Your task to perform on an android device: open device folders in google photos Image 0: 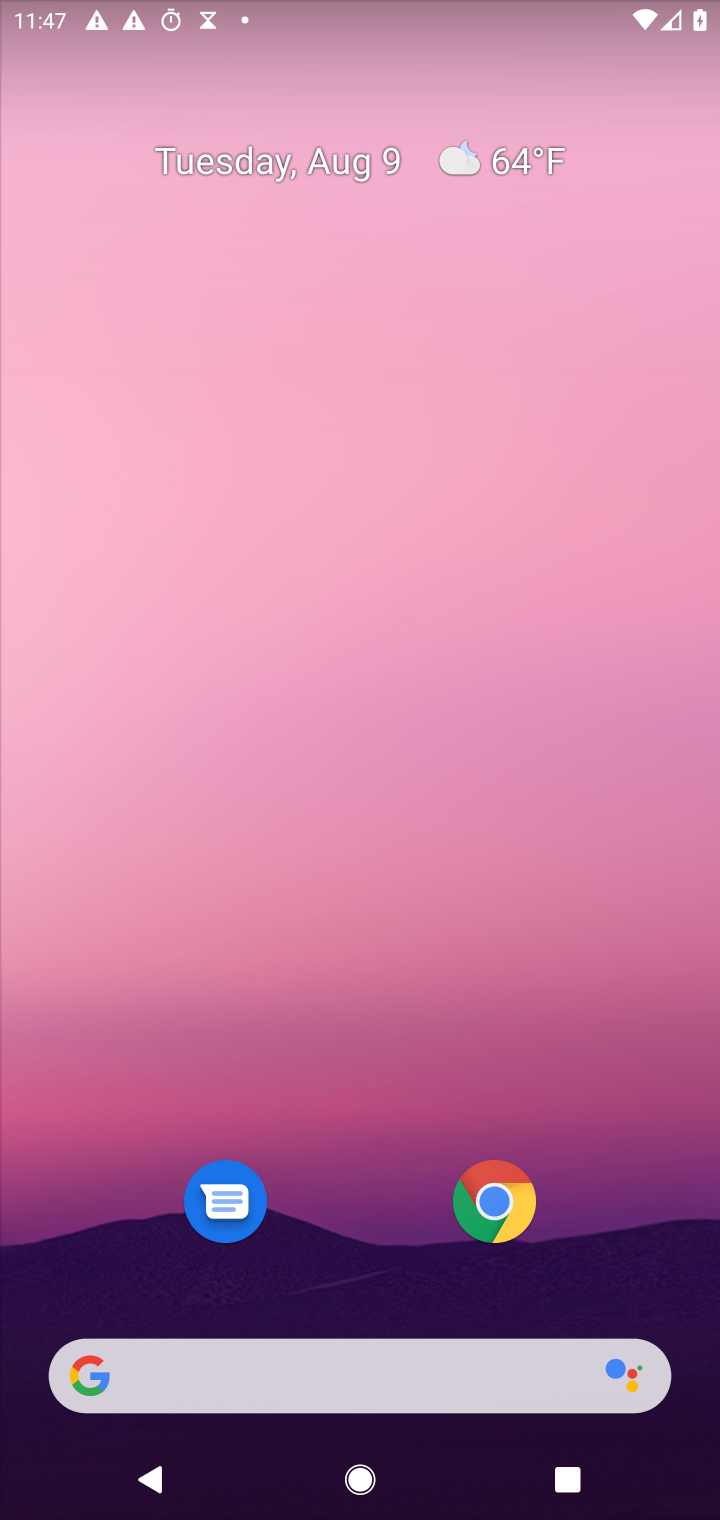
Step 0: press home button
Your task to perform on an android device: open device folders in google photos Image 1: 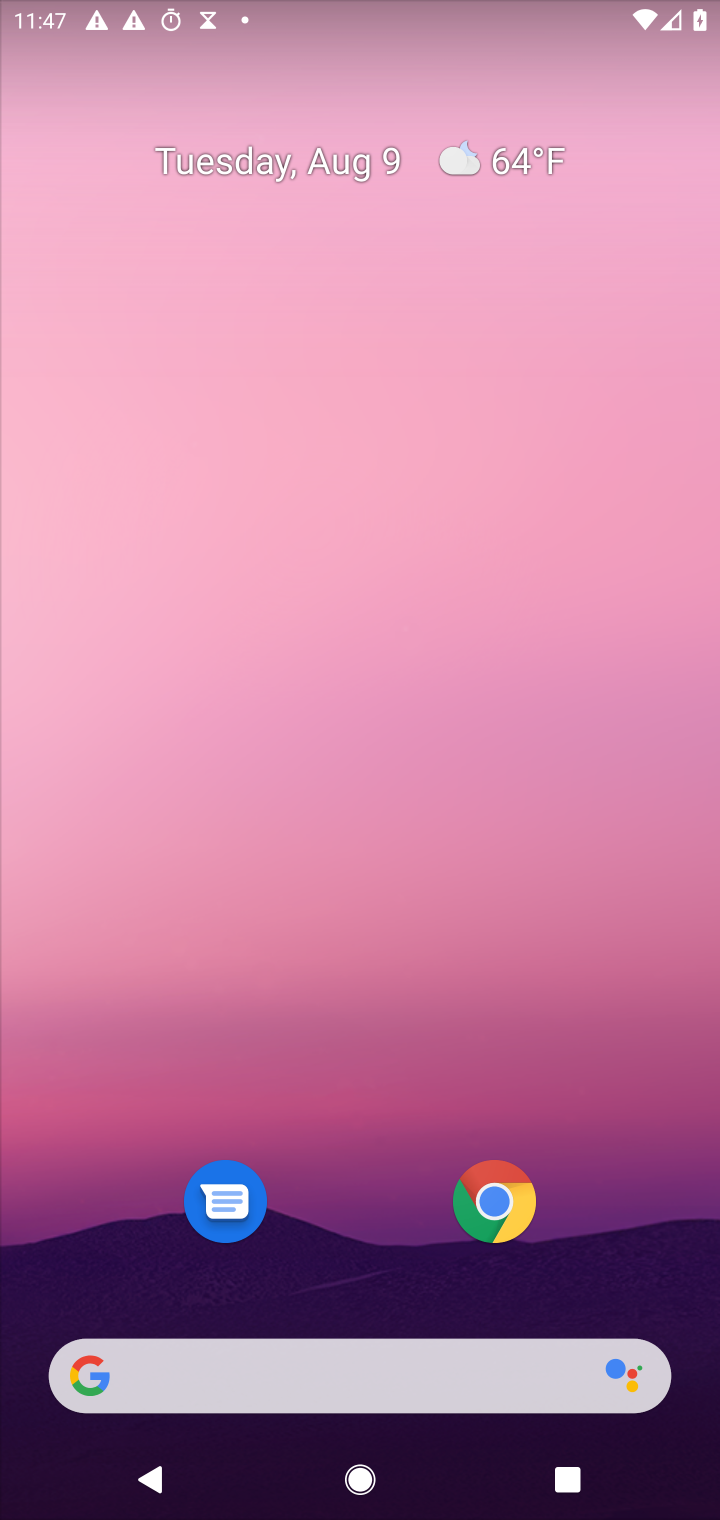
Step 1: drag from (407, 463) to (452, 272)
Your task to perform on an android device: open device folders in google photos Image 2: 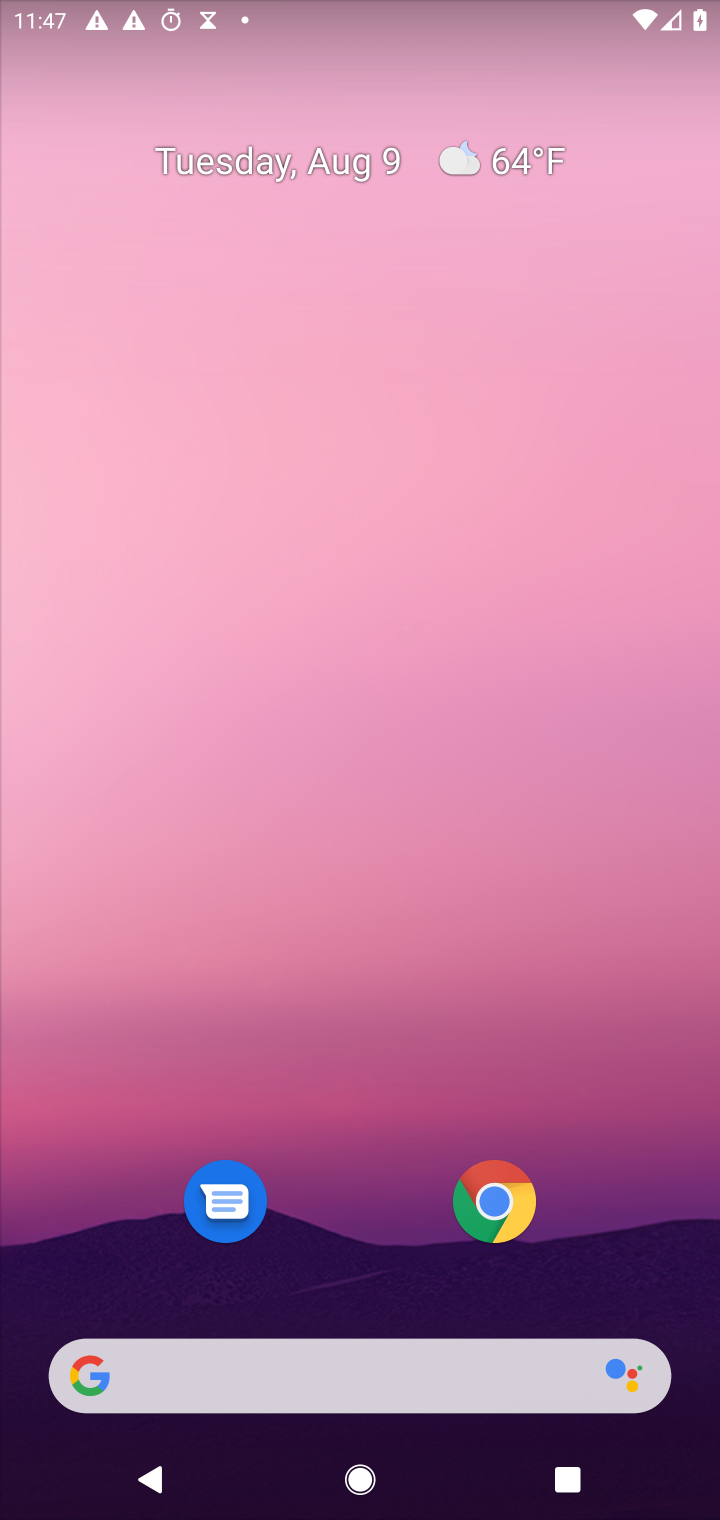
Step 2: drag from (358, 1189) to (364, 93)
Your task to perform on an android device: open device folders in google photos Image 3: 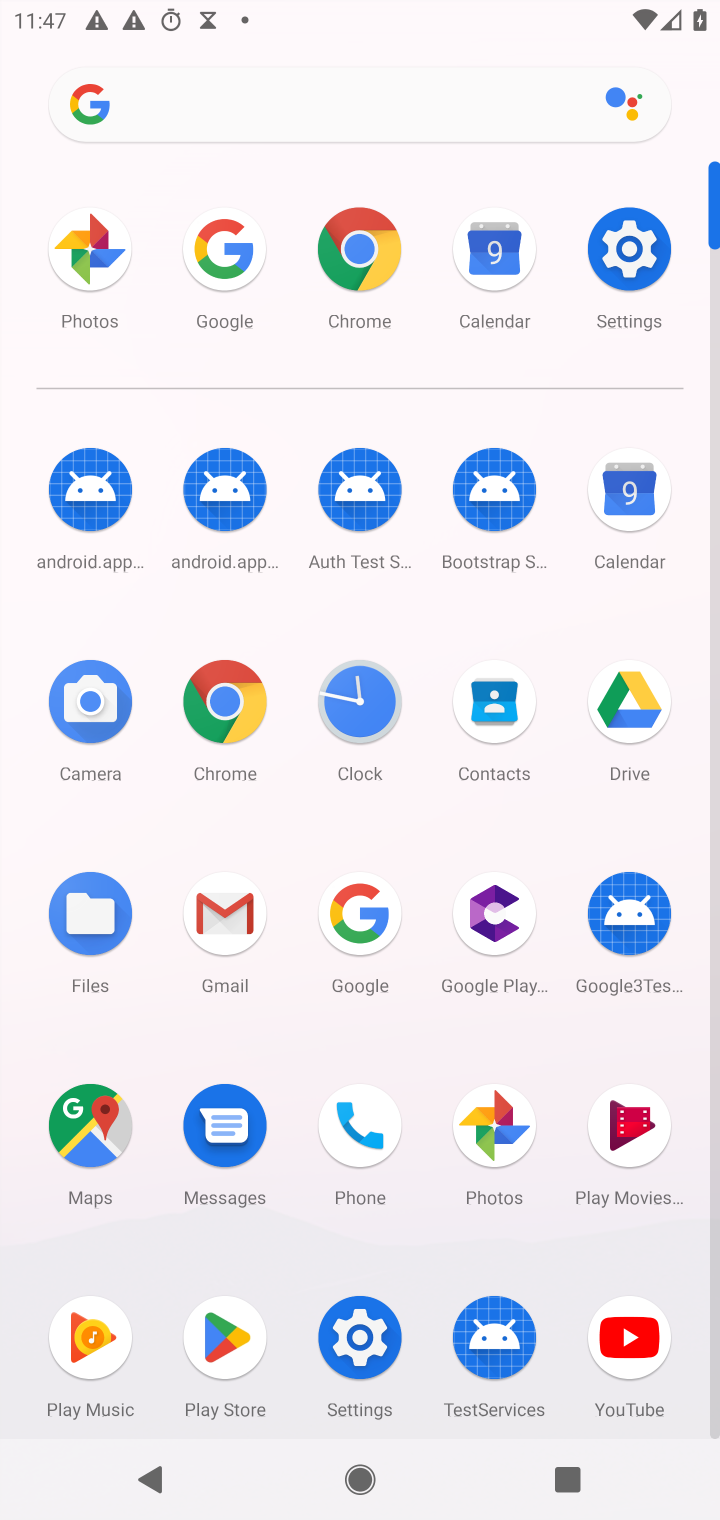
Step 3: click (505, 1129)
Your task to perform on an android device: open device folders in google photos Image 4: 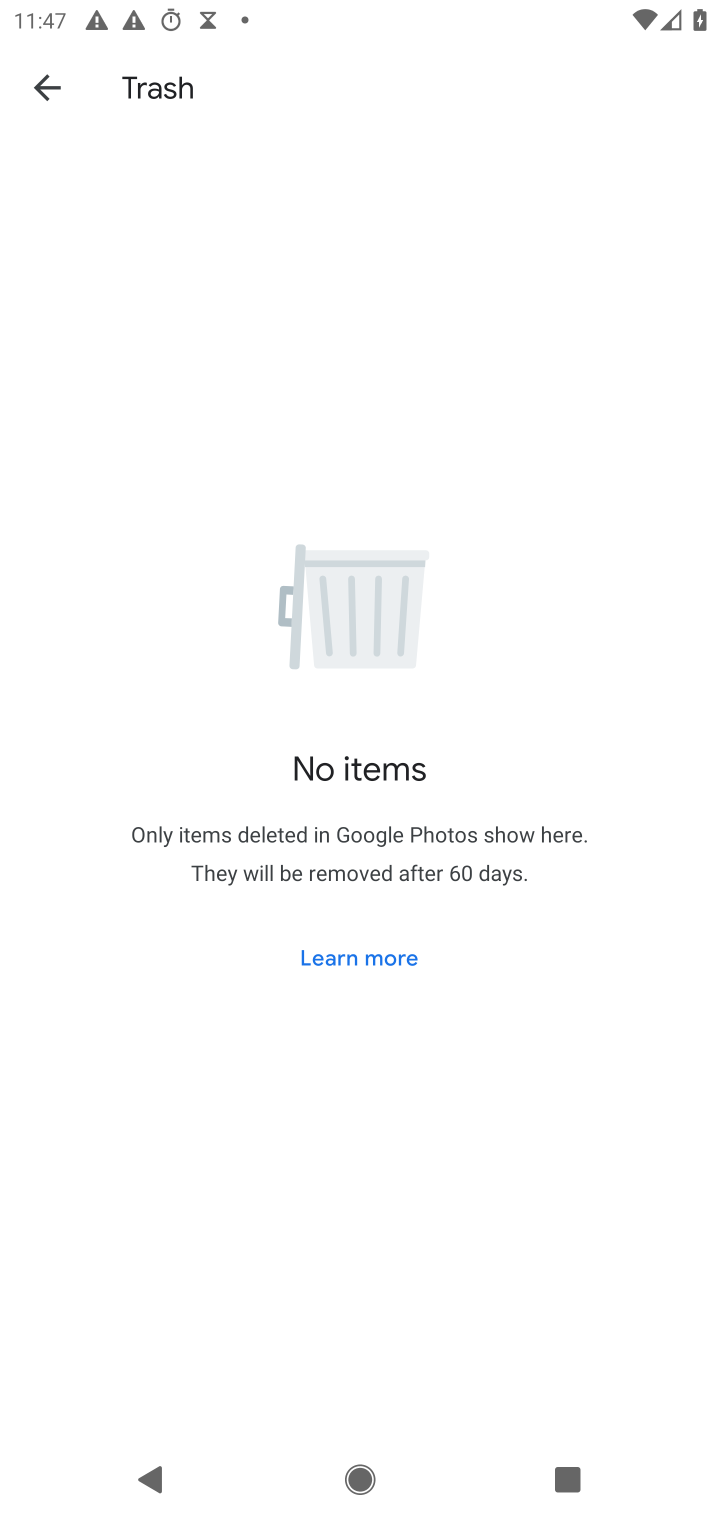
Step 4: click (46, 103)
Your task to perform on an android device: open device folders in google photos Image 5: 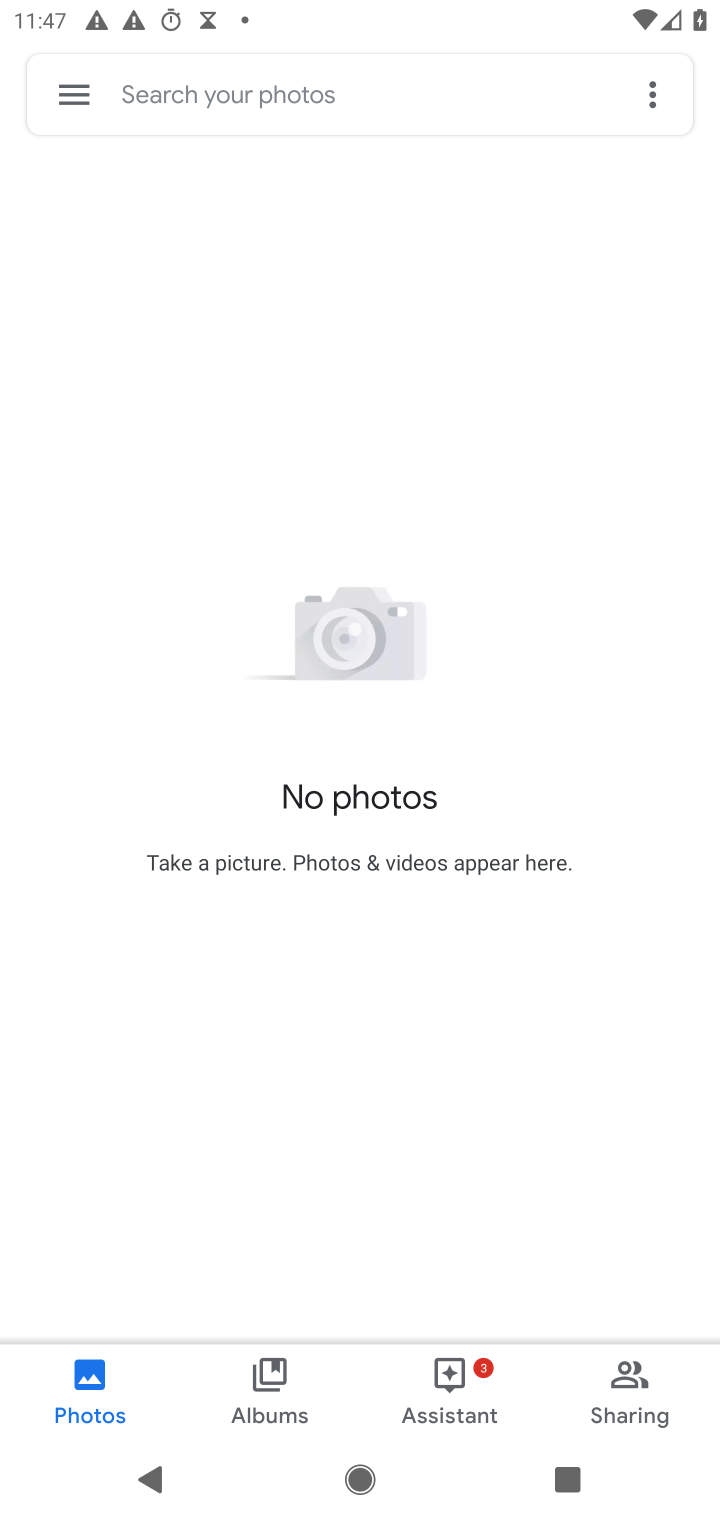
Step 5: click (205, 95)
Your task to perform on an android device: open device folders in google photos Image 6: 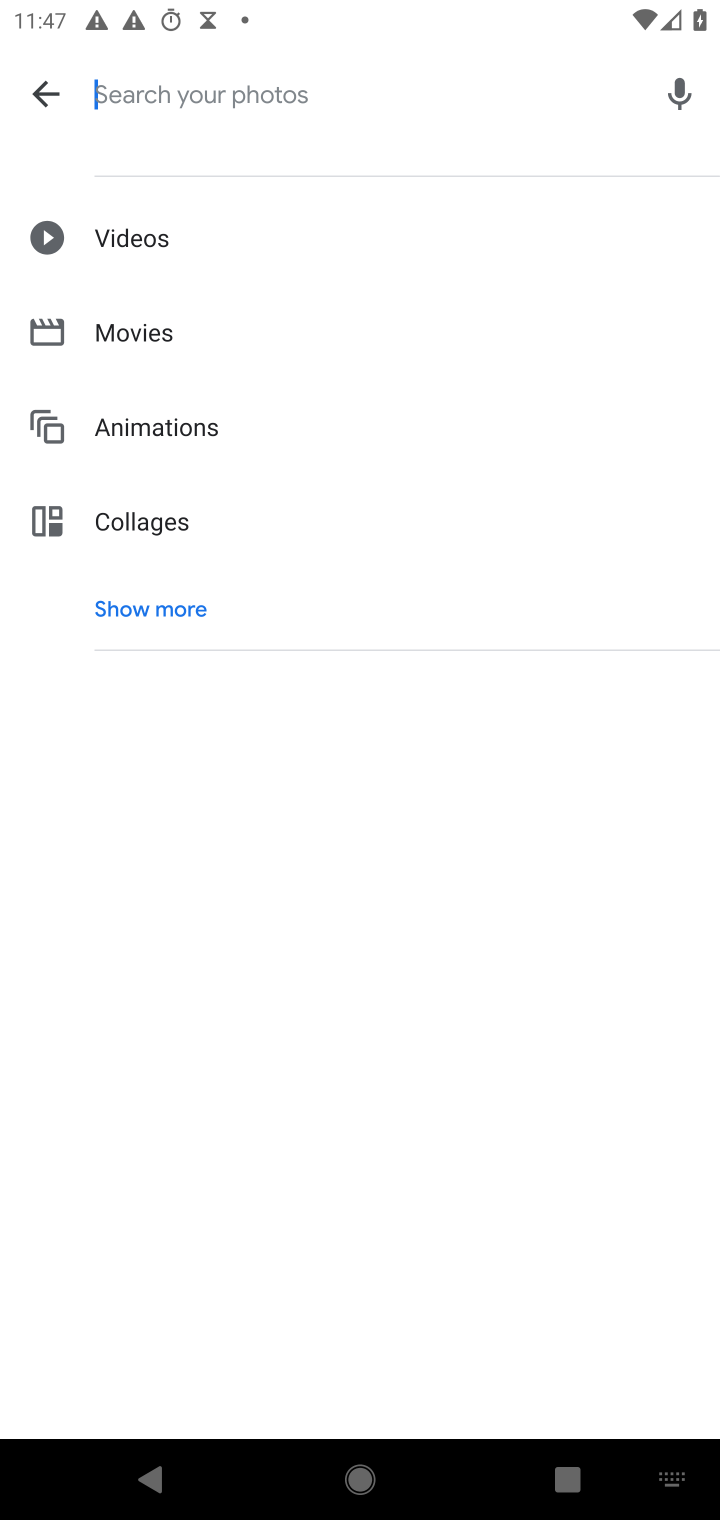
Step 6: type "device folders"
Your task to perform on an android device: open device folders in google photos Image 7: 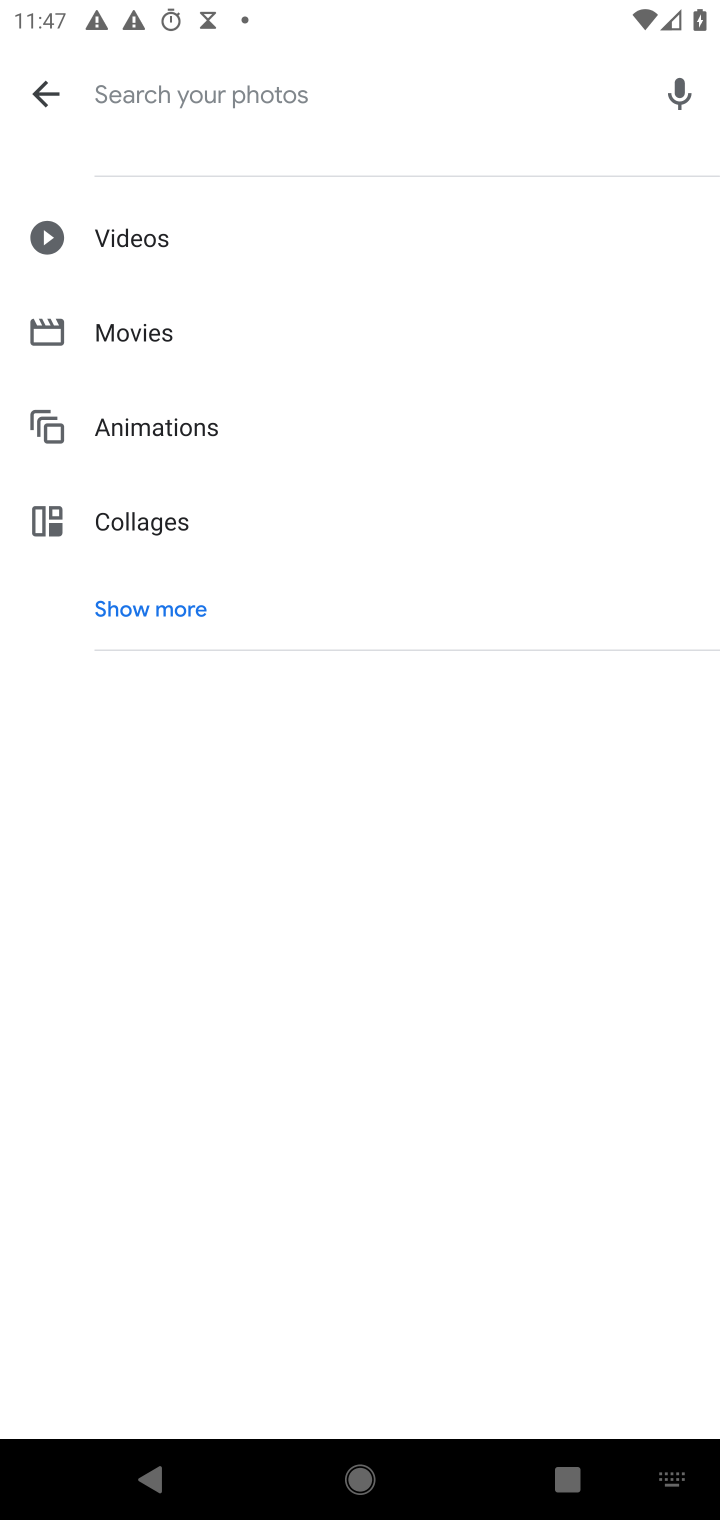
Step 7: click (194, 106)
Your task to perform on an android device: open device folders in google photos Image 8: 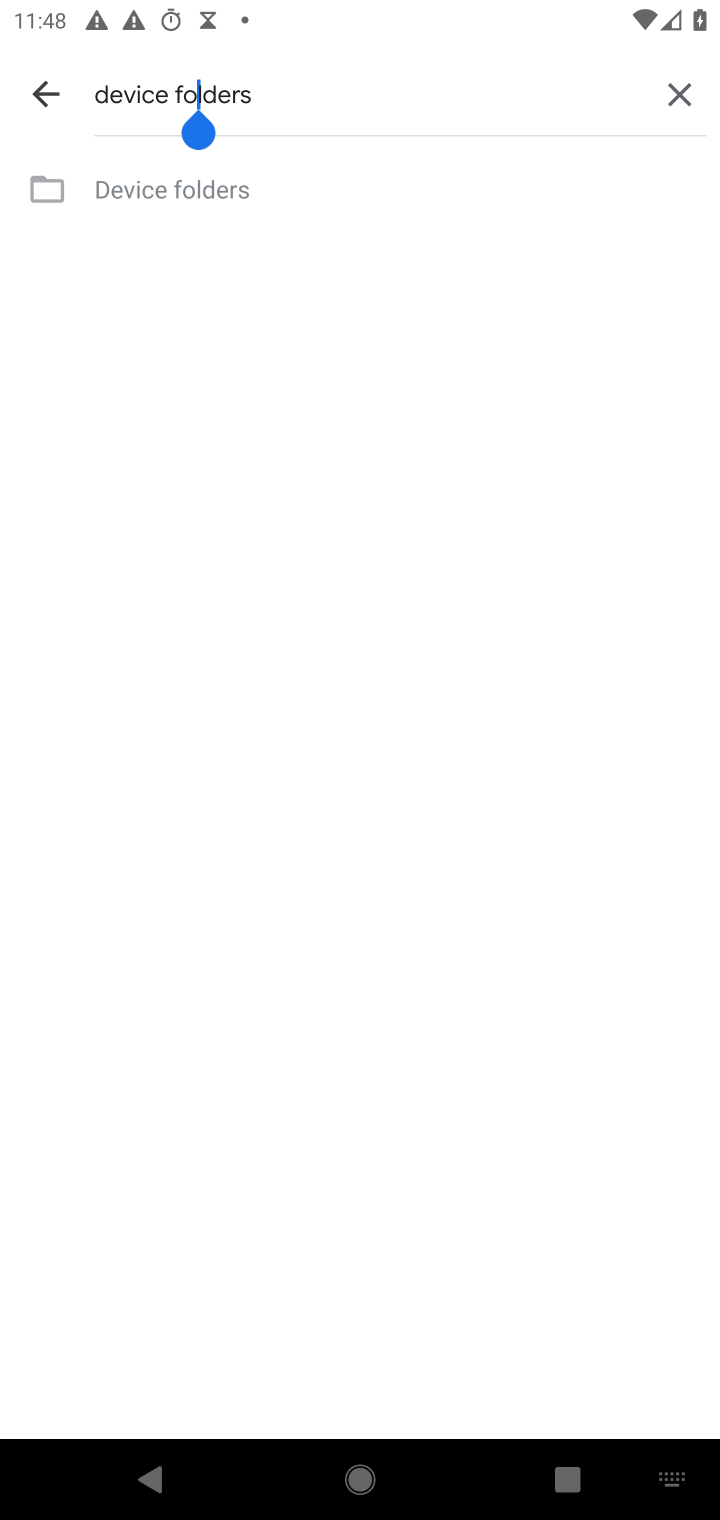
Step 8: click (125, 194)
Your task to perform on an android device: open device folders in google photos Image 9: 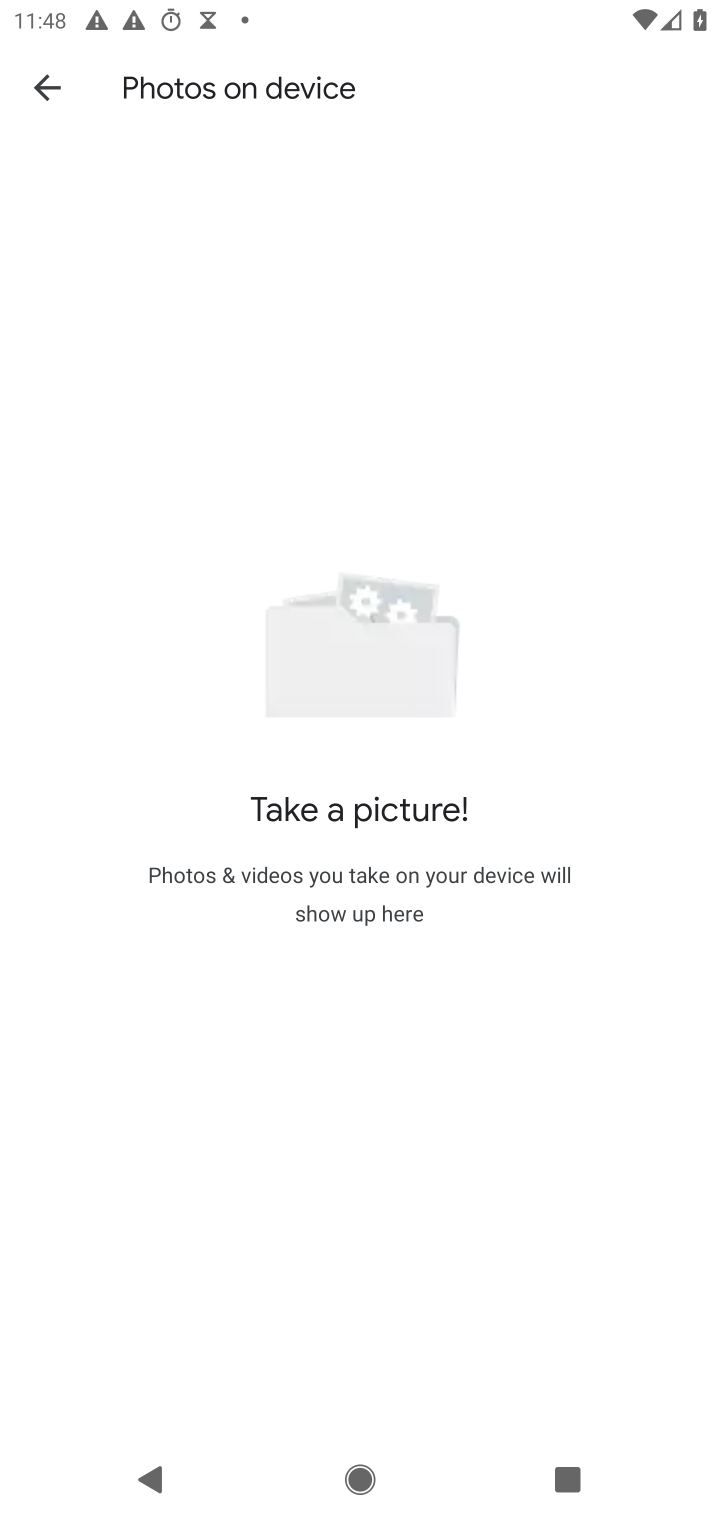
Step 9: task complete